Your task to perform on an android device: What's the weather going to be tomorrow? Image 0: 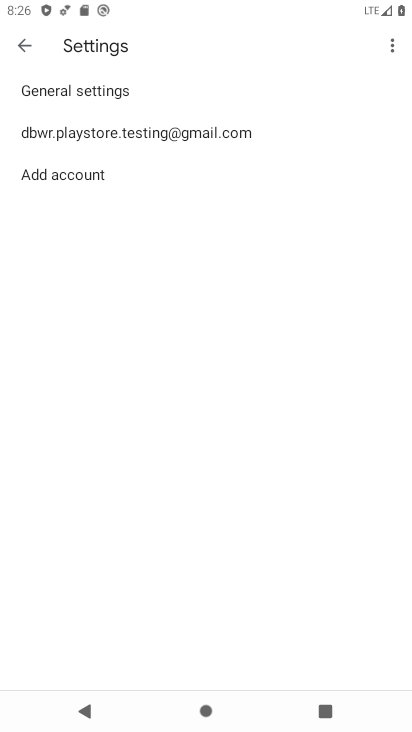
Step 0: press home button
Your task to perform on an android device: What's the weather going to be tomorrow? Image 1: 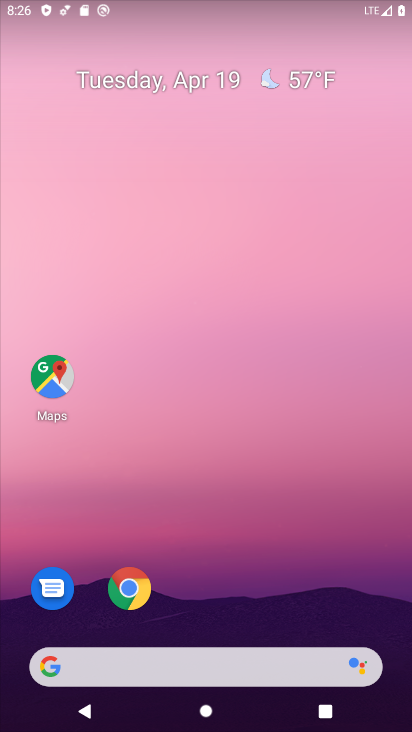
Step 1: drag from (280, 590) to (325, 135)
Your task to perform on an android device: What's the weather going to be tomorrow? Image 2: 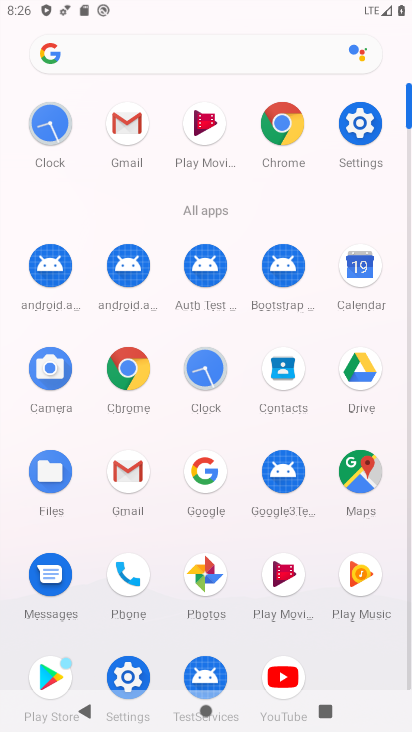
Step 2: click (185, 61)
Your task to perform on an android device: What's the weather going to be tomorrow? Image 3: 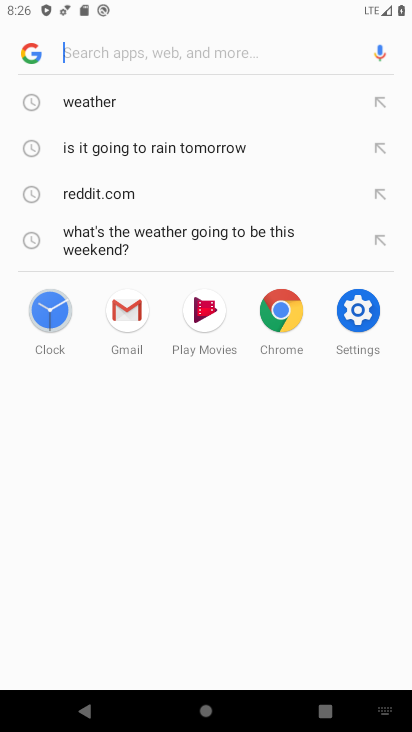
Step 3: type "what's the weather going to be tomorrow"
Your task to perform on an android device: What's the weather going to be tomorrow? Image 4: 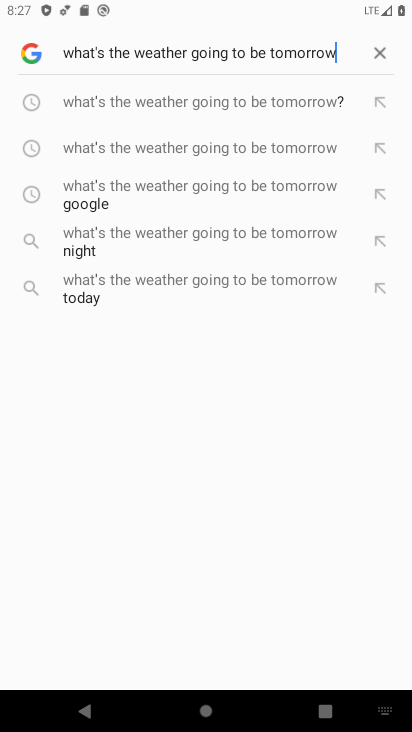
Step 4: click (220, 95)
Your task to perform on an android device: What's the weather going to be tomorrow? Image 5: 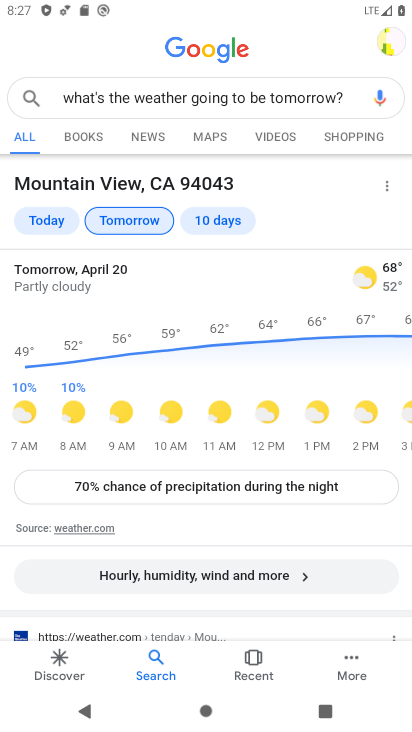
Step 5: task complete